Your task to perform on an android device: Search for seafood restaurants on Google Maps Image 0: 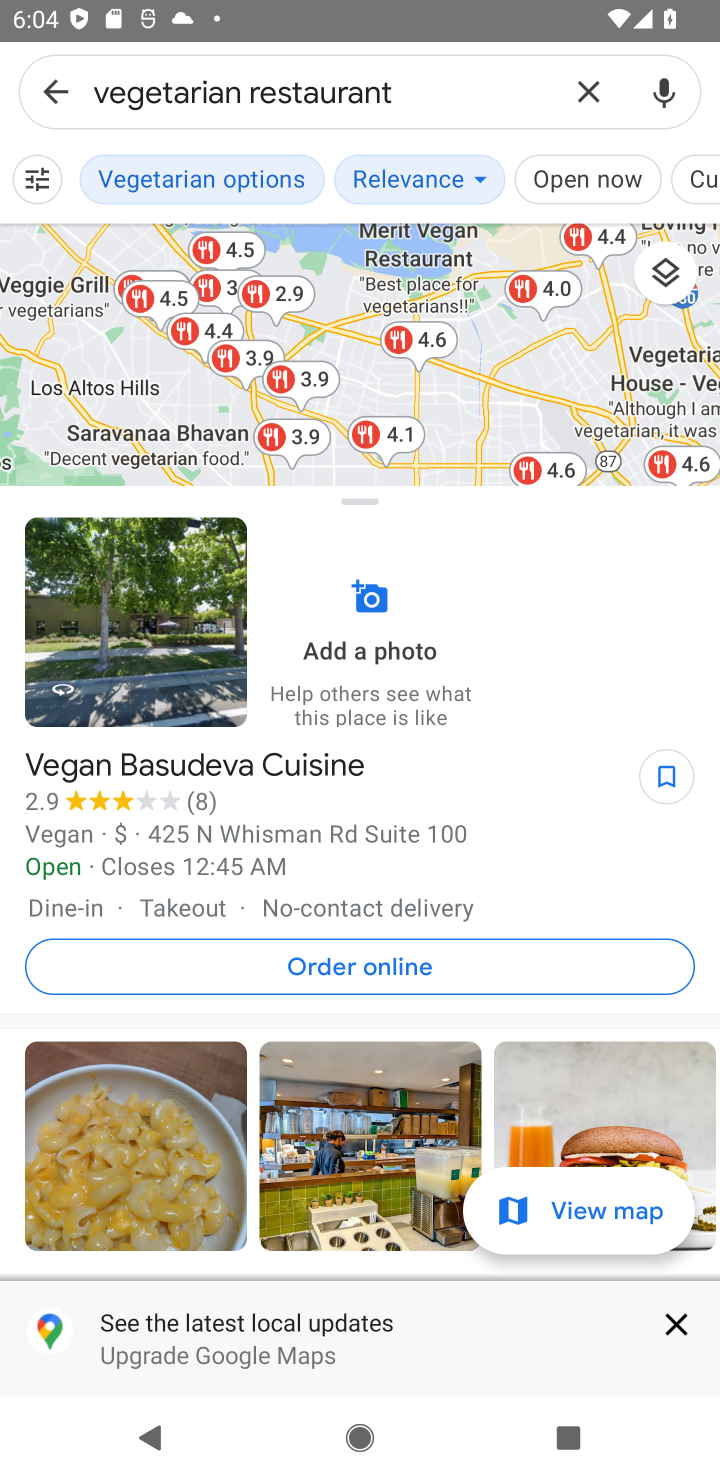
Step 0: click (585, 101)
Your task to perform on an android device: Search for seafood restaurants on Google Maps Image 1: 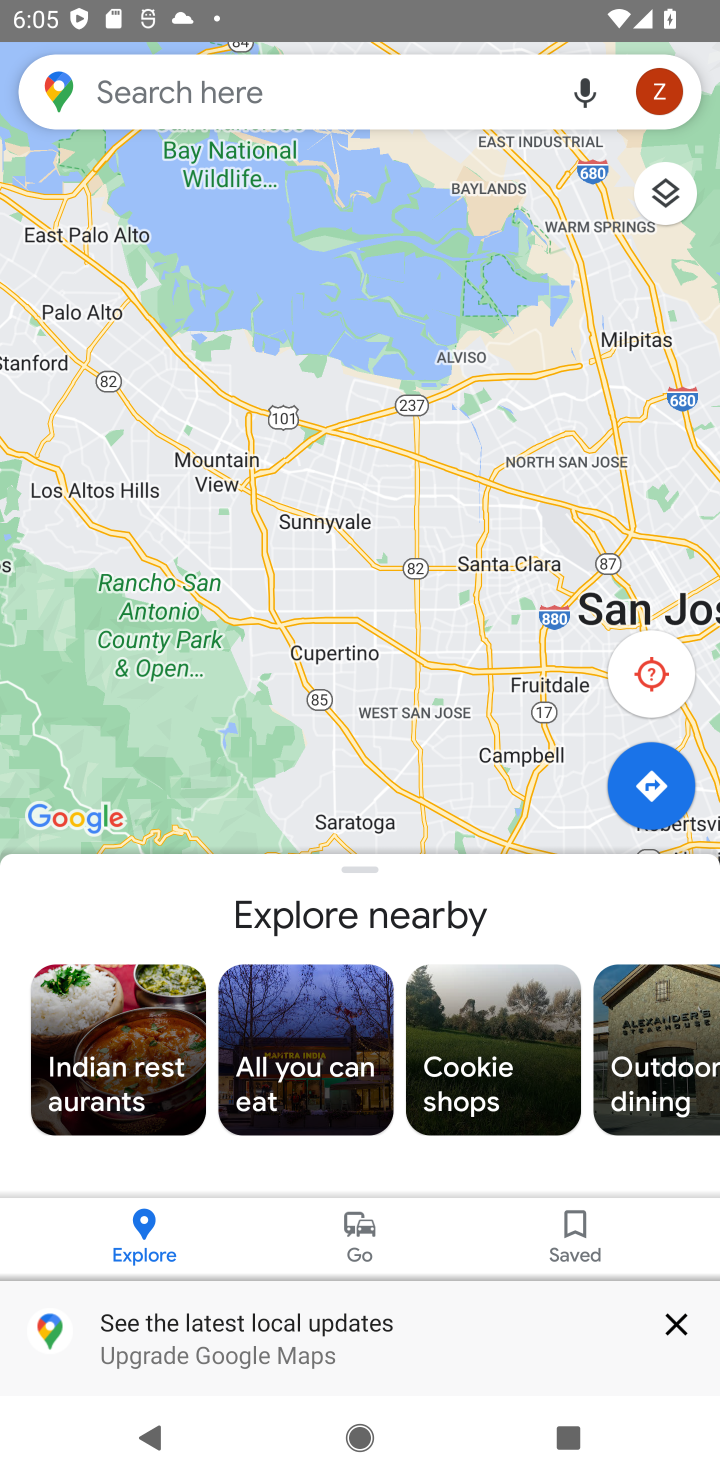
Step 1: click (319, 99)
Your task to perform on an android device: Search for seafood restaurants on Google Maps Image 2: 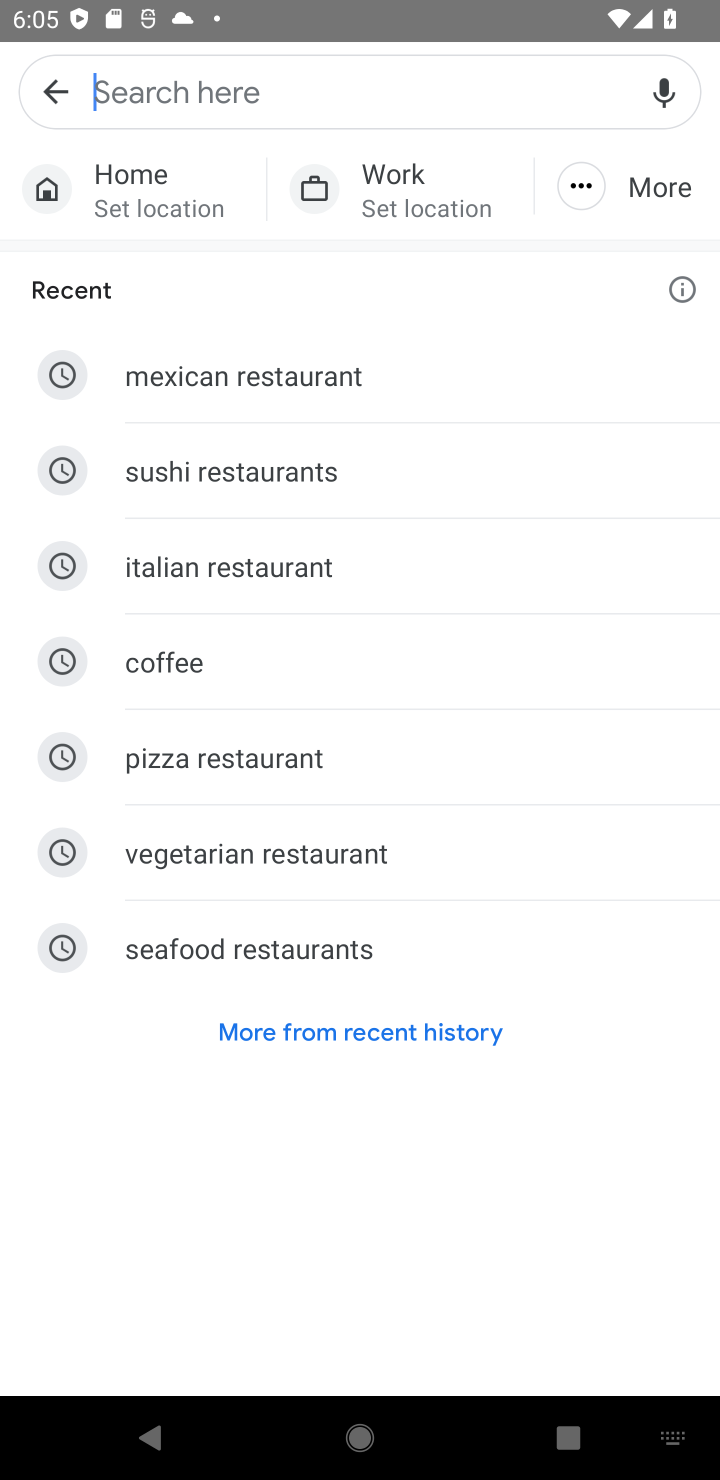
Step 2: click (202, 944)
Your task to perform on an android device: Search for seafood restaurants on Google Maps Image 3: 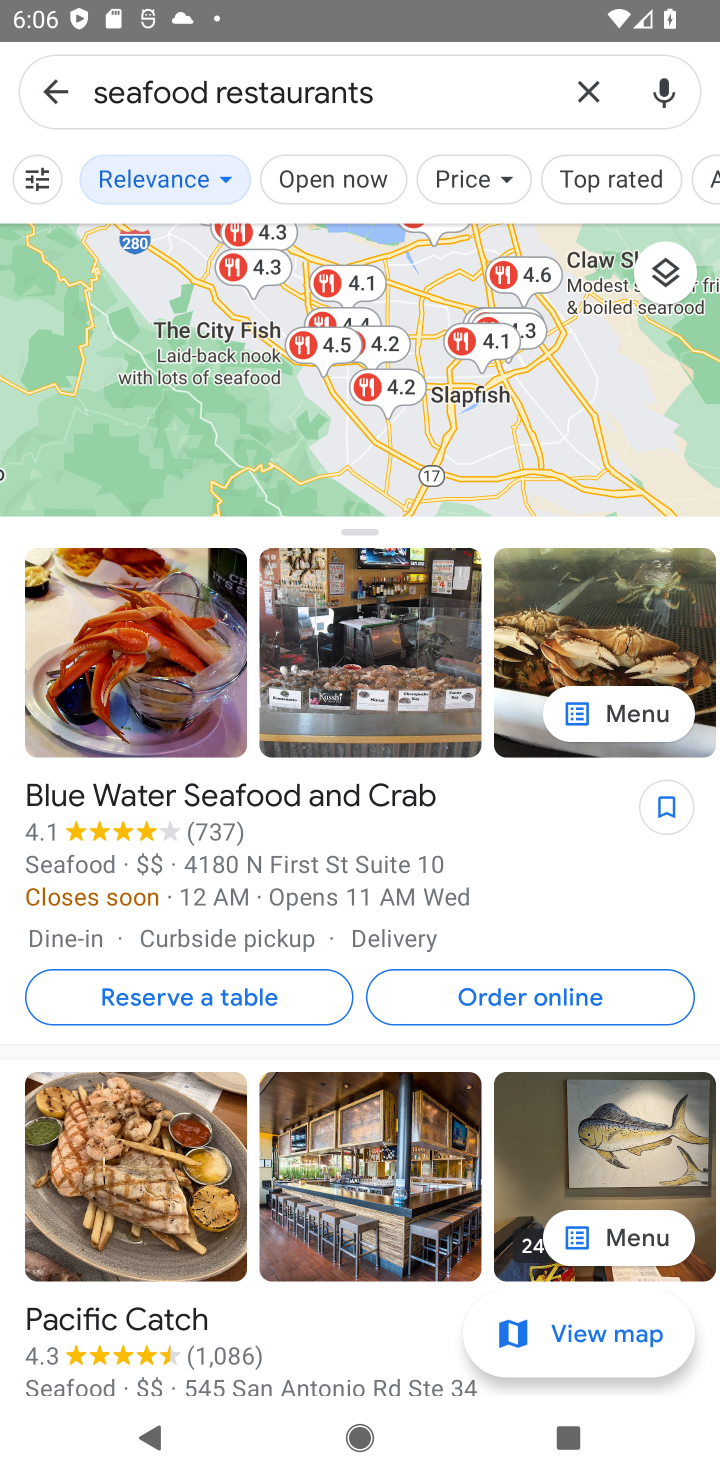
Step 3: task complete